Your task to perform on an android device: Go to Wikipedia Image 0: 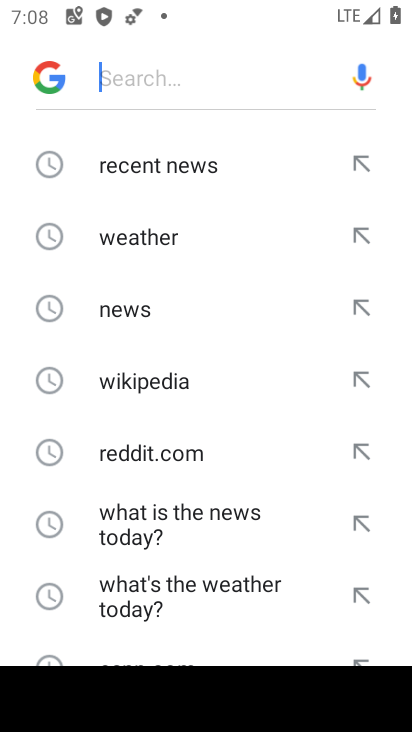
Step 0: press home button
Your task to perform on an android device: Go to Wikipedia Image 1: 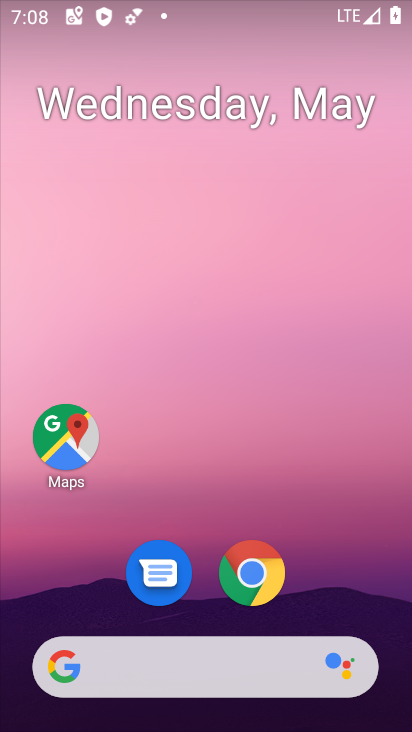
Step 1: drag from (311, 611) to (267, 277)
Your task to perform on an android device: Go to Wikipedia Image 2: 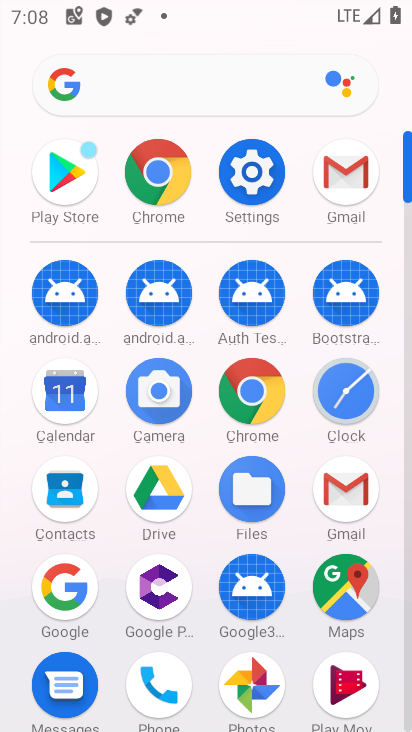
Step 2: click (146, 213)
Your task to perform on an android device: Go to Wikipedia Image 3: 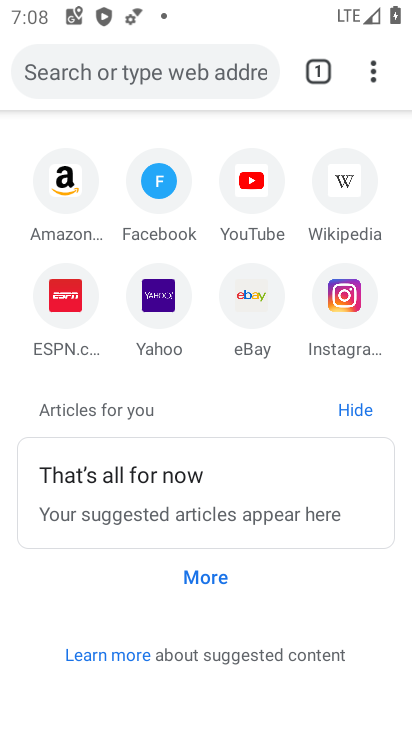
Step 3: click (333, 202)
Your task to perform on an android device: Go to Wikipedia Image 4: 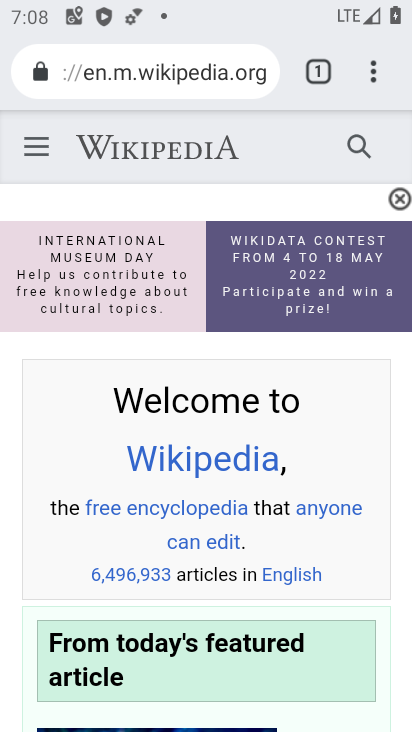
Step 4: task complete